Your task to perform on an android device: Add asus rog to the cart on amazon.com Image 0: 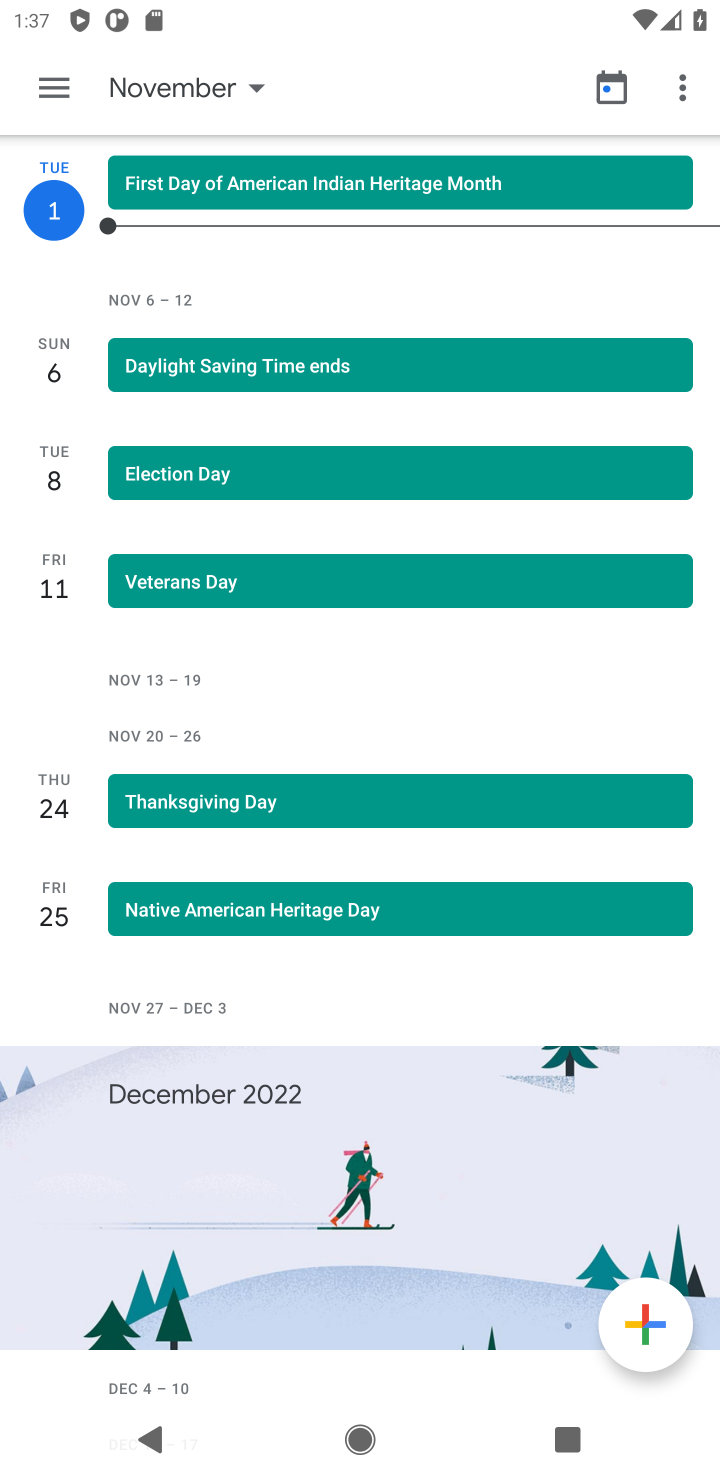
Step 0: press home button
Your task to perform on an android device: Add asus rog to the cart on amazon.com Image 1: 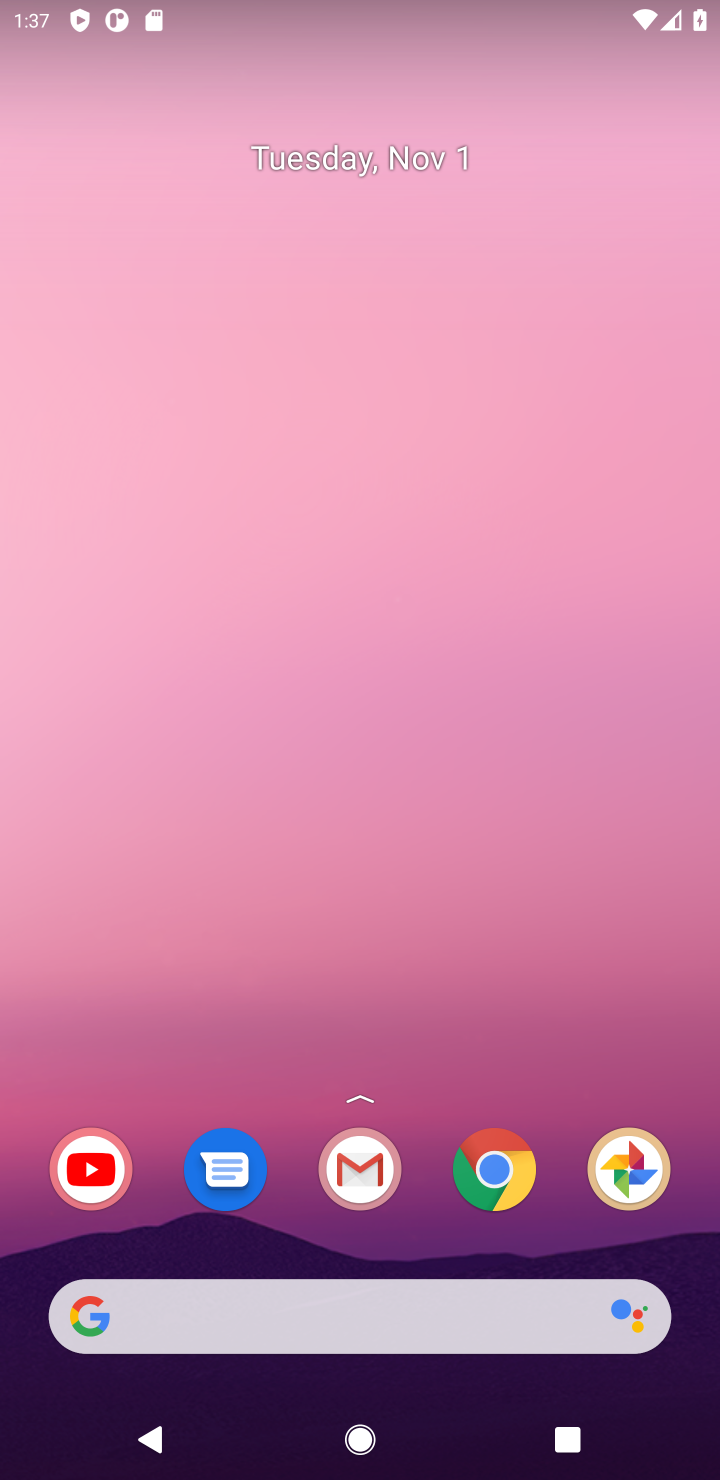
Step 1: click (484, 1177)
Your task to perform on an android device: Add asus rog to the cart on amazon.com Image 2: 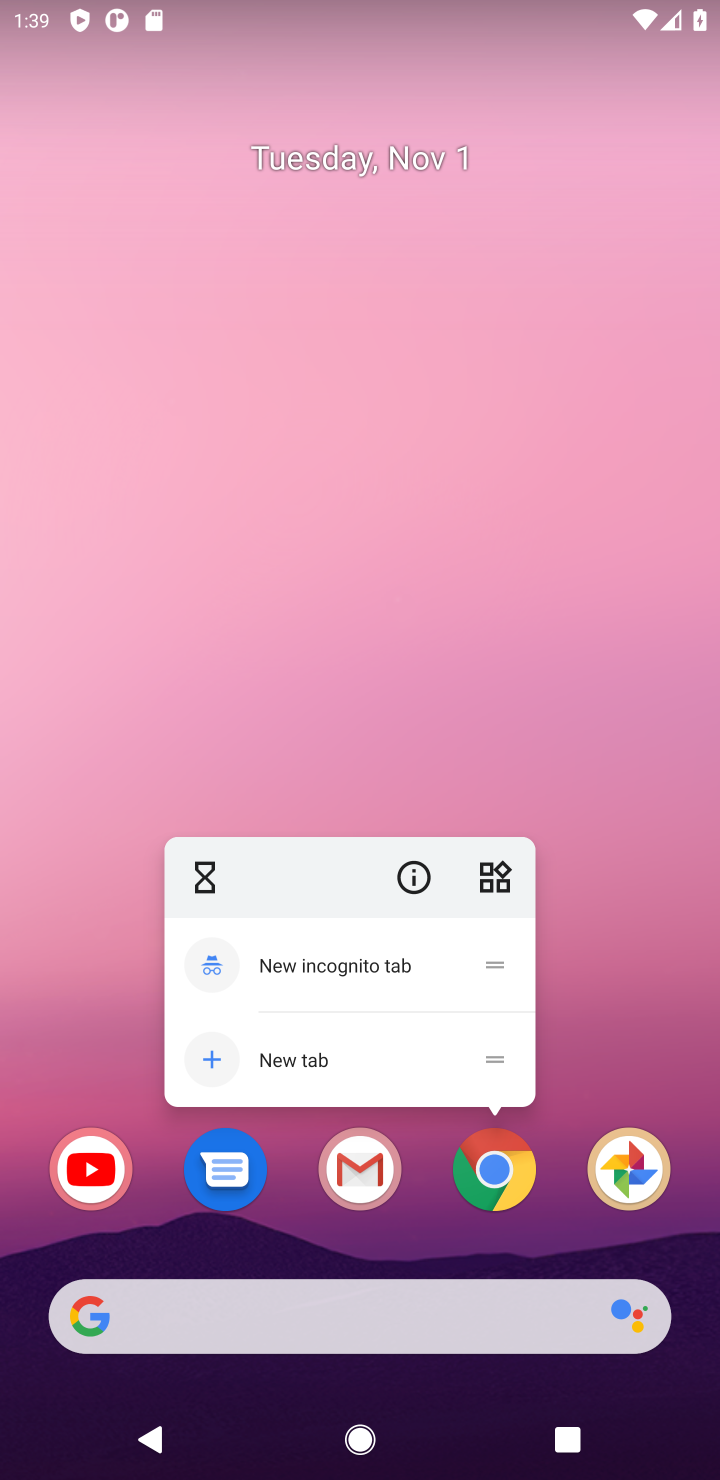
Step 2: click (507, 1166)
Your task to perform on an android device: Add asus rog to the cart on amazon.com Image 3: 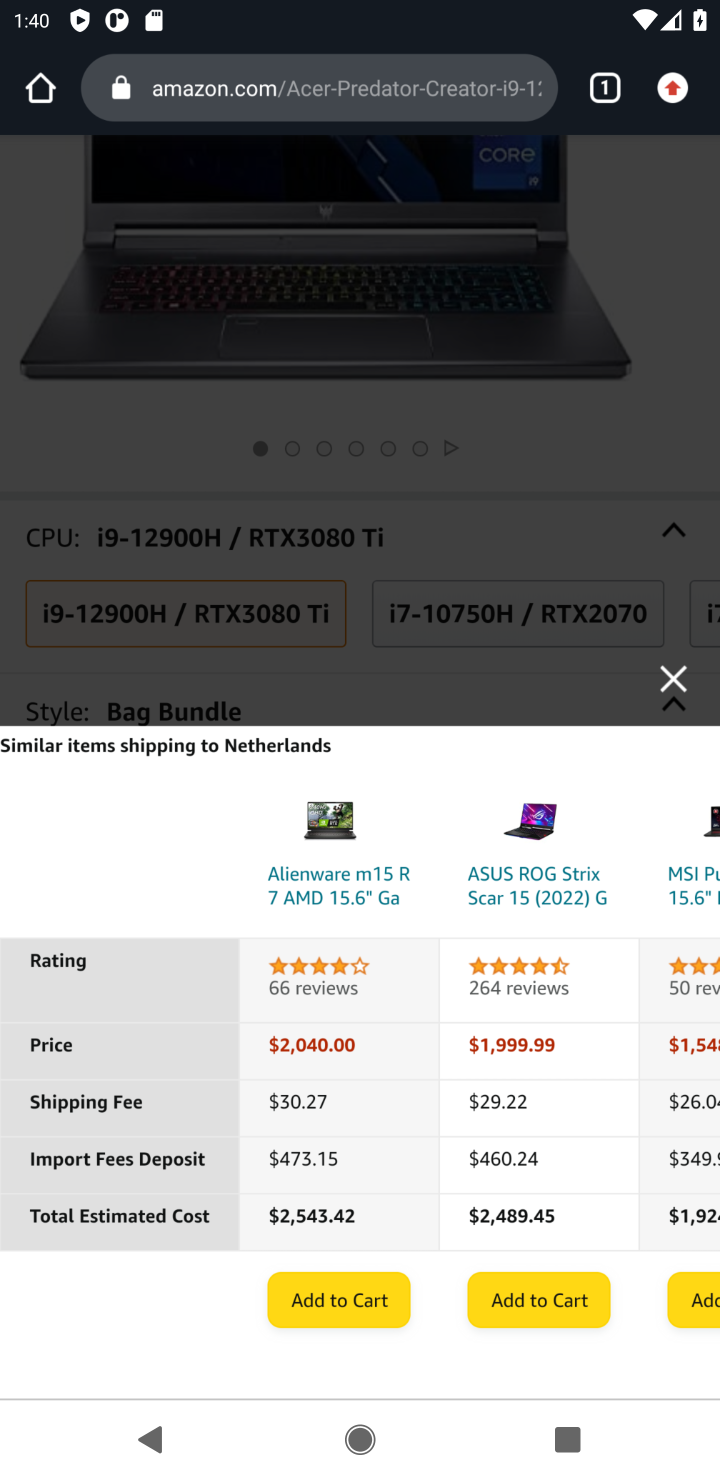
Step 3: click (491, 1168)
Your task to perform on an android device: Add asus rog to the cart on amazon.com Image 4: 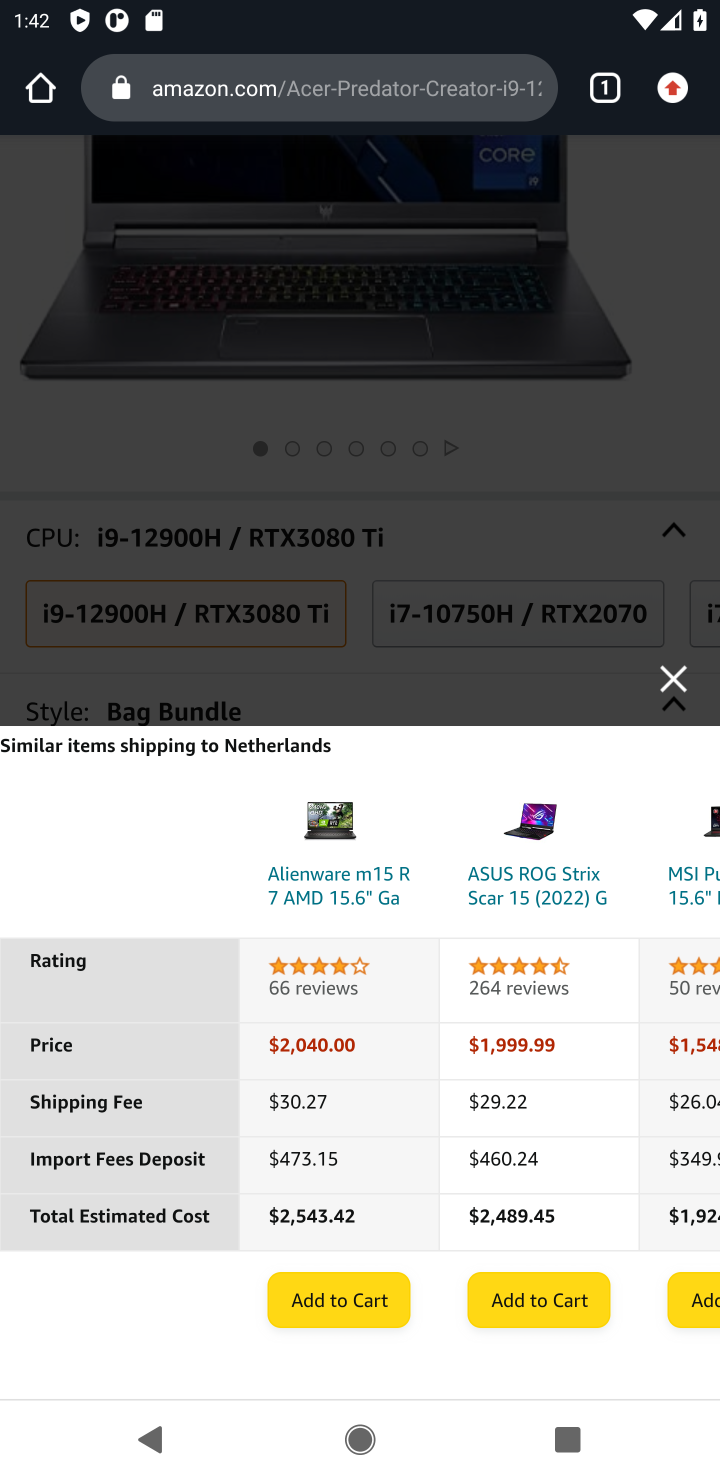
Step 4: press back button
Your task to perform on an android device: Add asus rog to the cart on amazon.com Image 5: 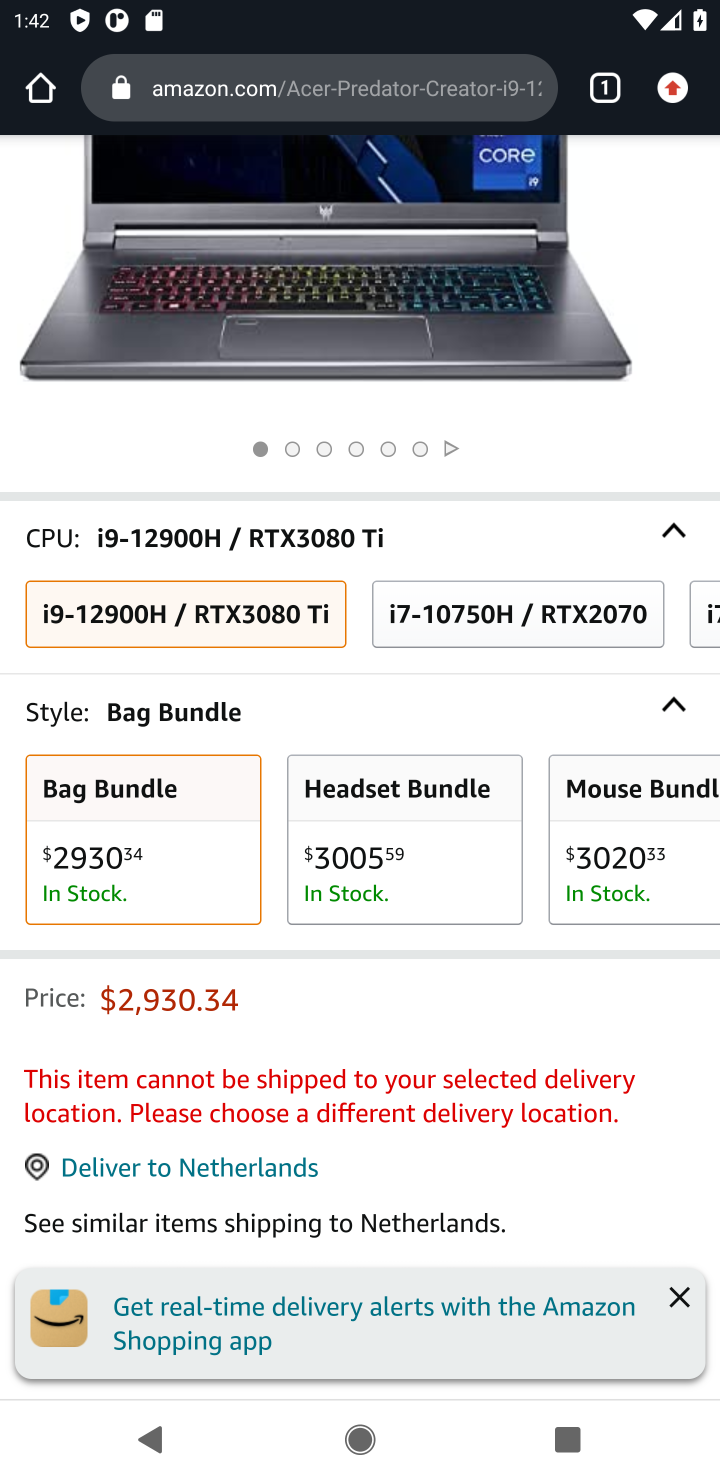
Step 5: click (415, 78)
Your task to perform on an android device: Add asus rog to the cart on amazon.com Image 6: 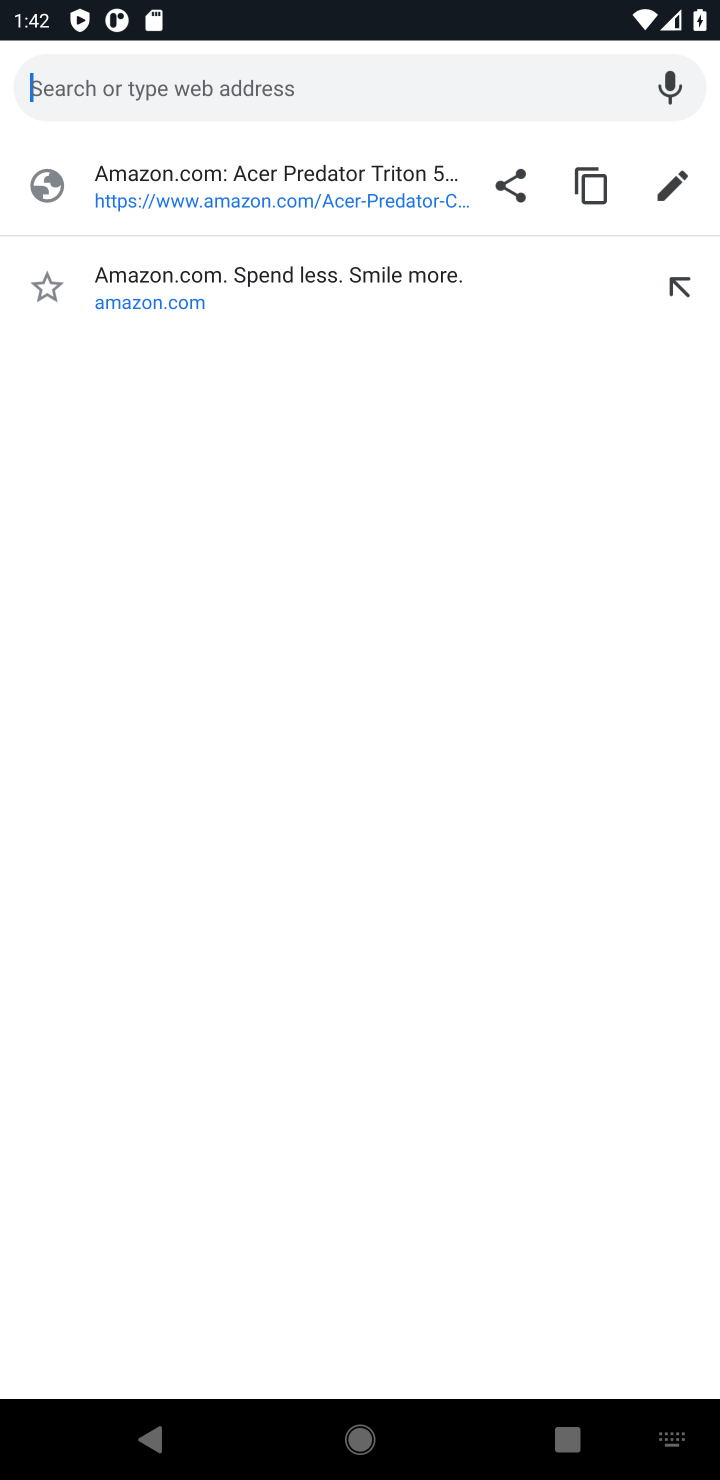
Step 6: press back button
Your task to perform on an android device: Add asus rog to the cart on amazon.com Image 7: 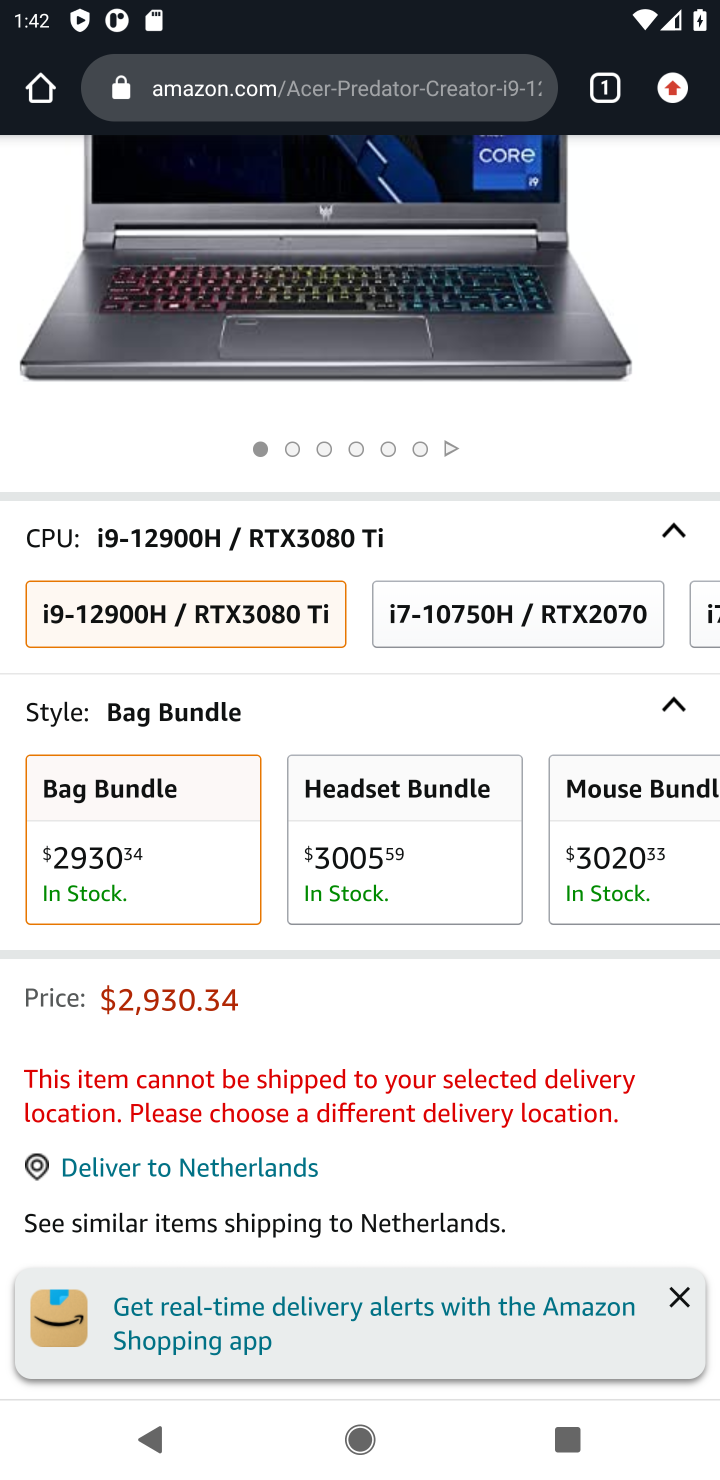
Step 7: drag from (397, 260) to (465, 1425)
Your task to perform on an android device: Add asus rog to the cart on amazon.com Image 8: 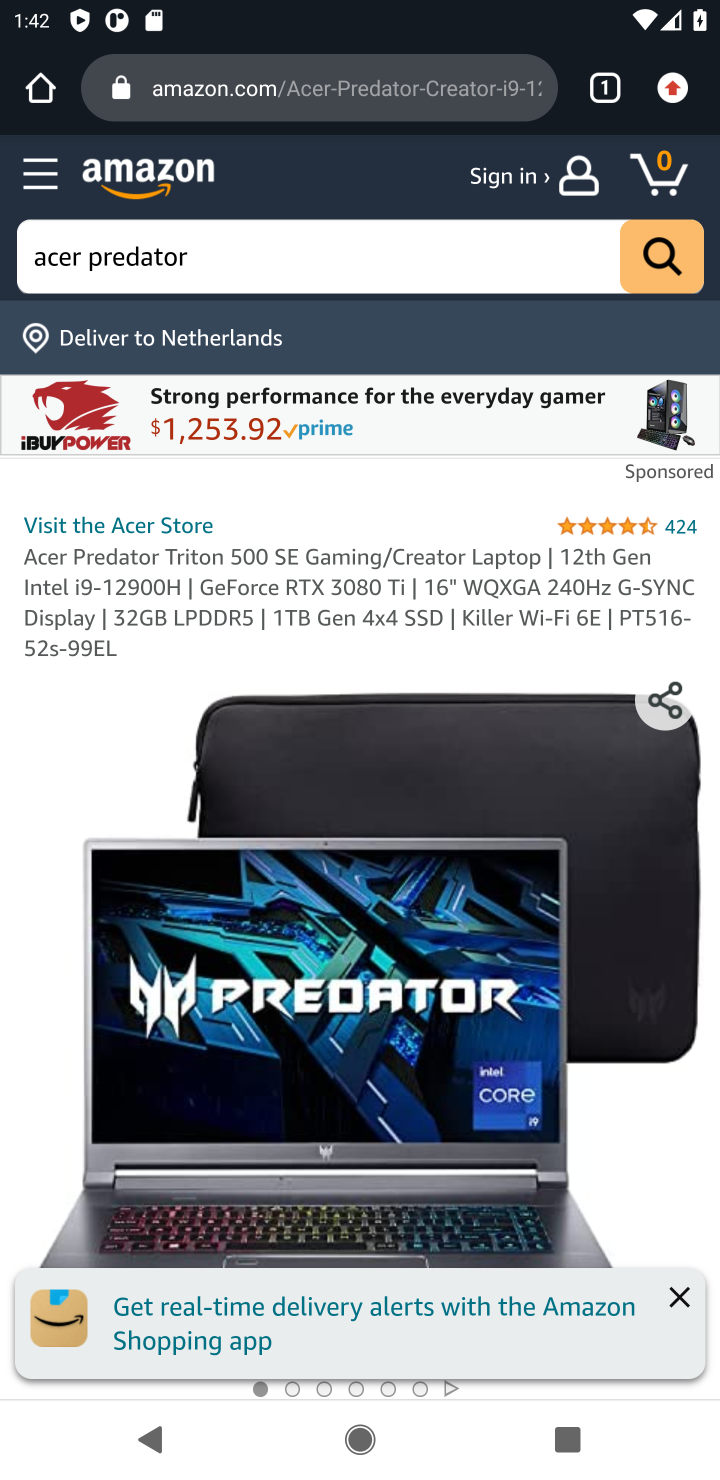
Step 8: click (420, 251)
Your task to perform on an android device: Add asus rog to the cart on amazon.com Image 9: 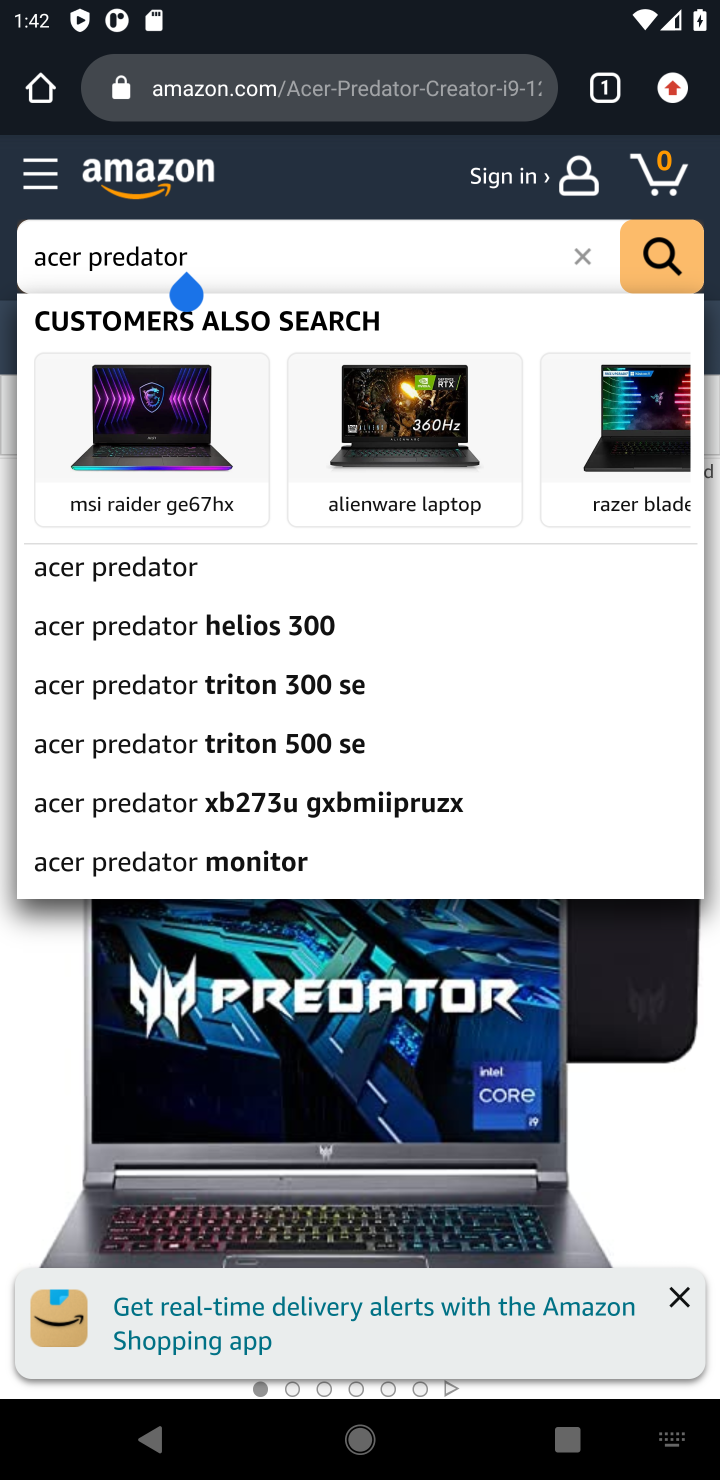
Step 9: click (420, 251)
Your task to perform on an android device: Add asus rog to the cart on amazon.com Image 10: 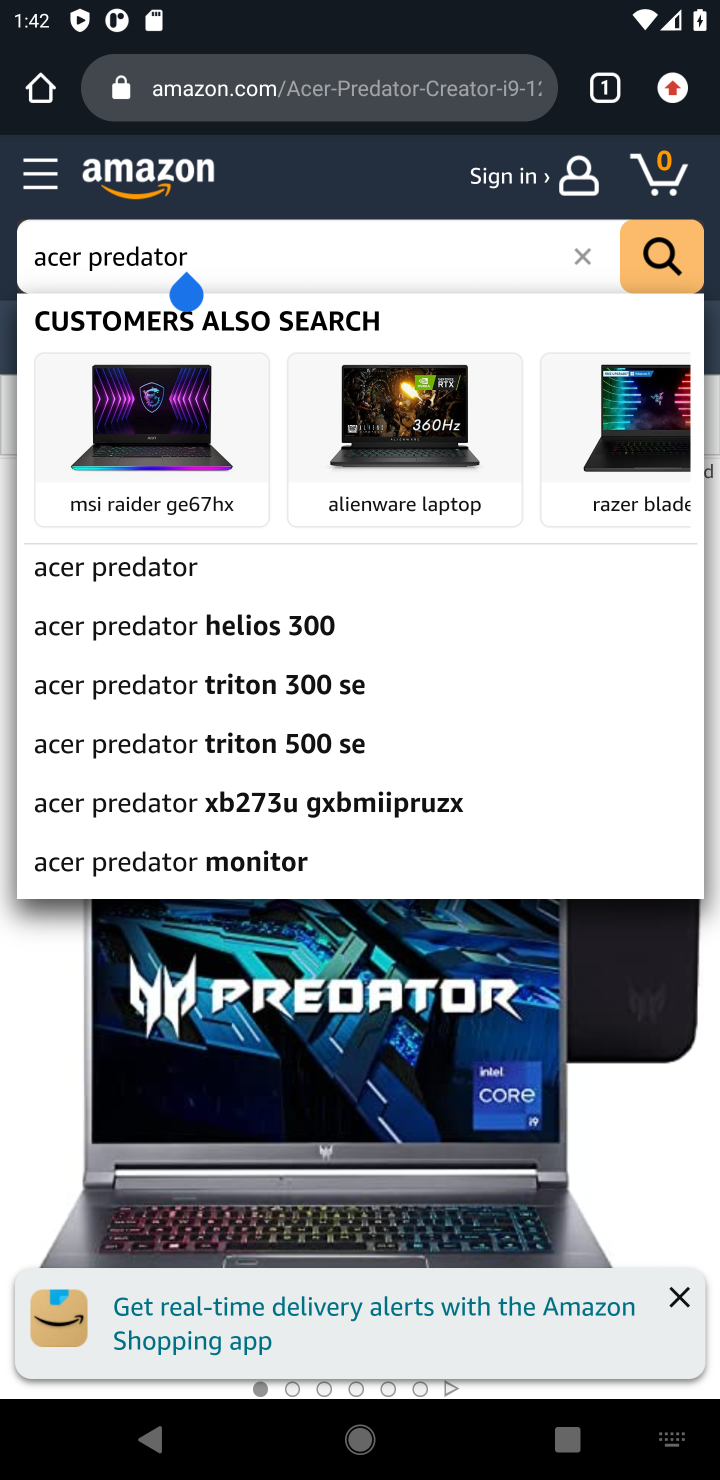
Step 10: click (578, 253)
Your task to perform on an android device: Add asus rog to the cart on amazon.com Image 11: 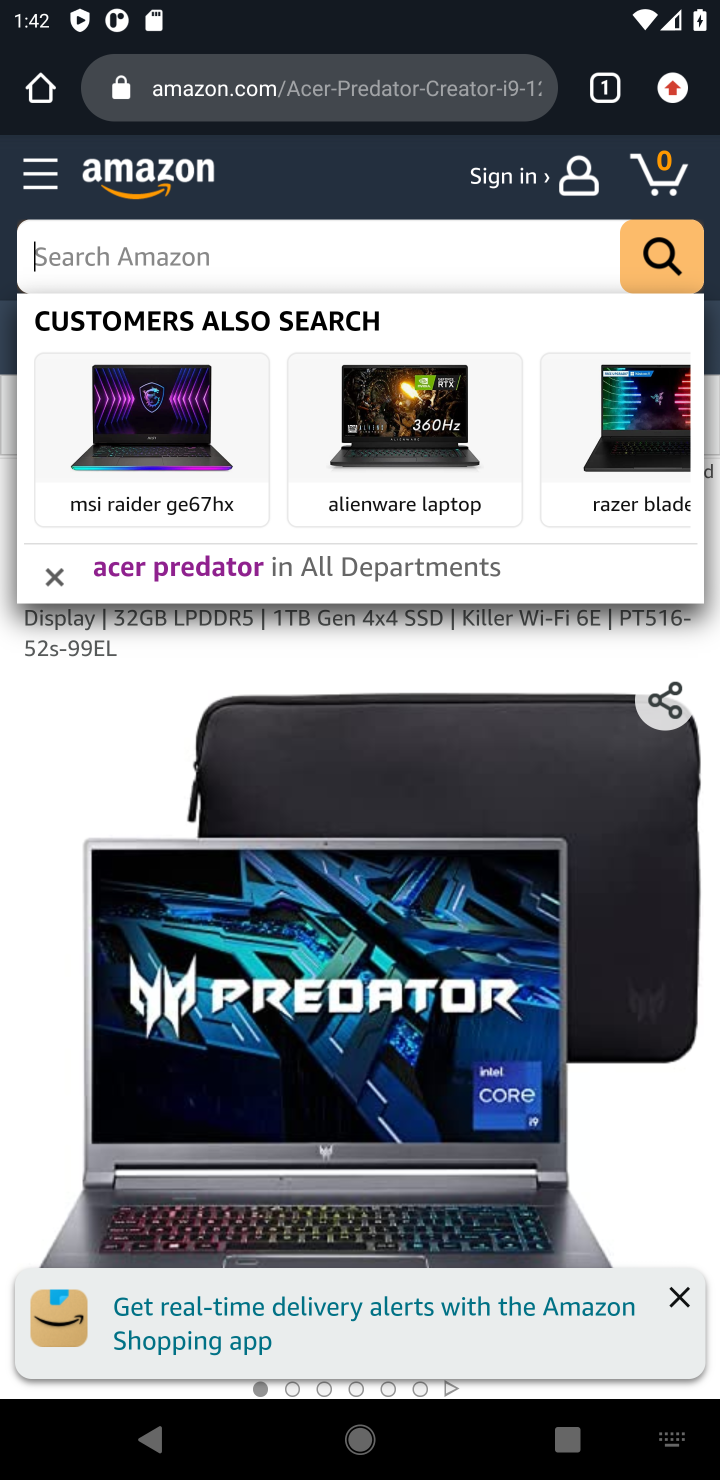
Step 11: type "asus rog"
Your task to perform on an android device: Add asus rog to the cart on amazon.com Image 12: 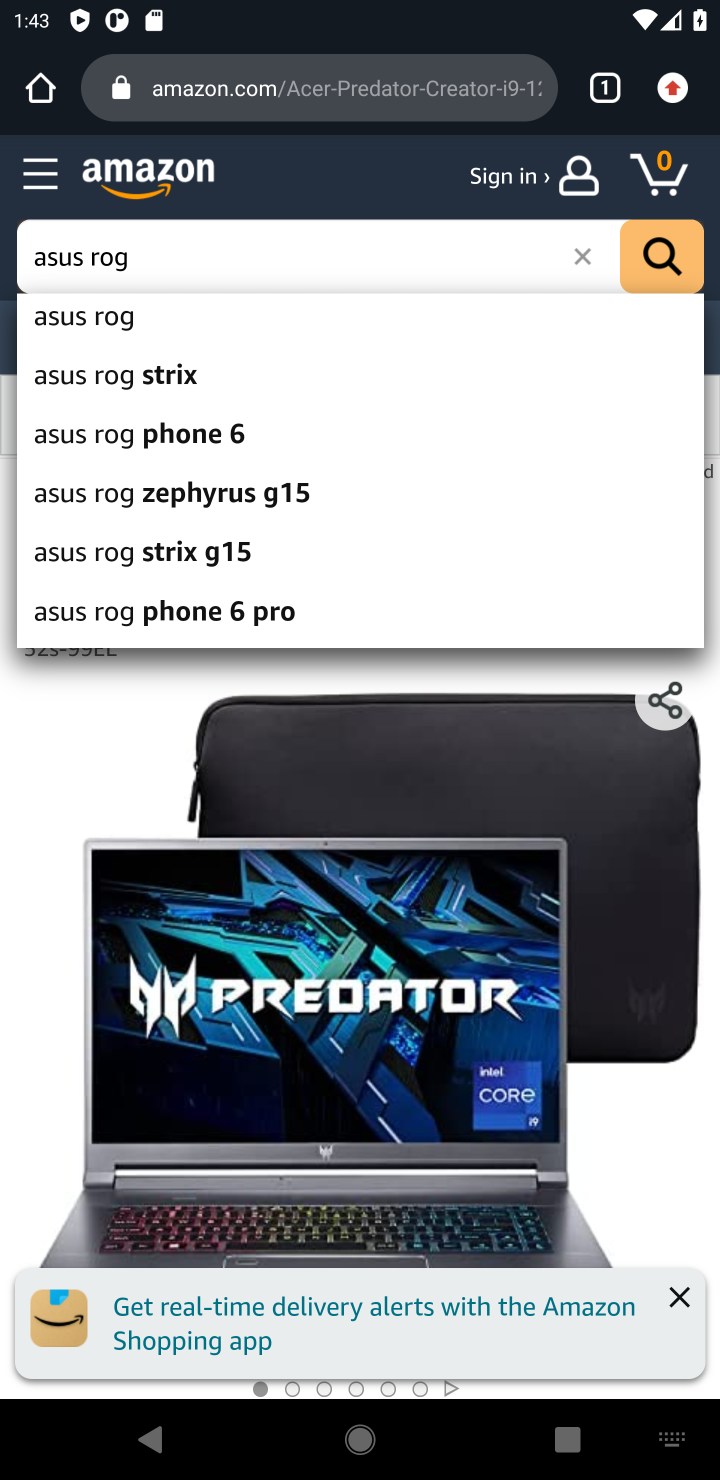
Step 12: click (45, 322)
Your task to perform on an android device: Add asus rog to the cart on amazon.com Image 13: 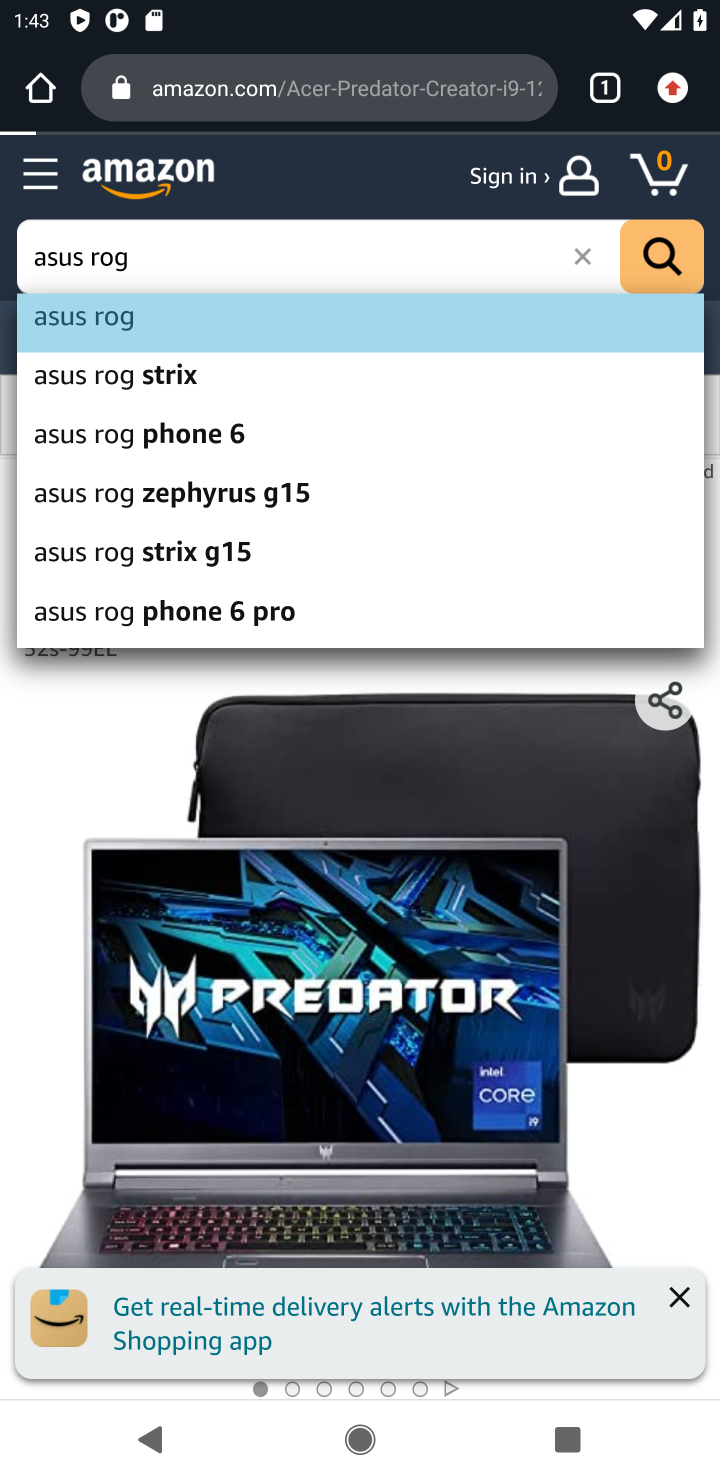
Step 13: click (112, 308)
Your task to perform on an android device: Add asus rog to the cart on amazon.com Image 14: 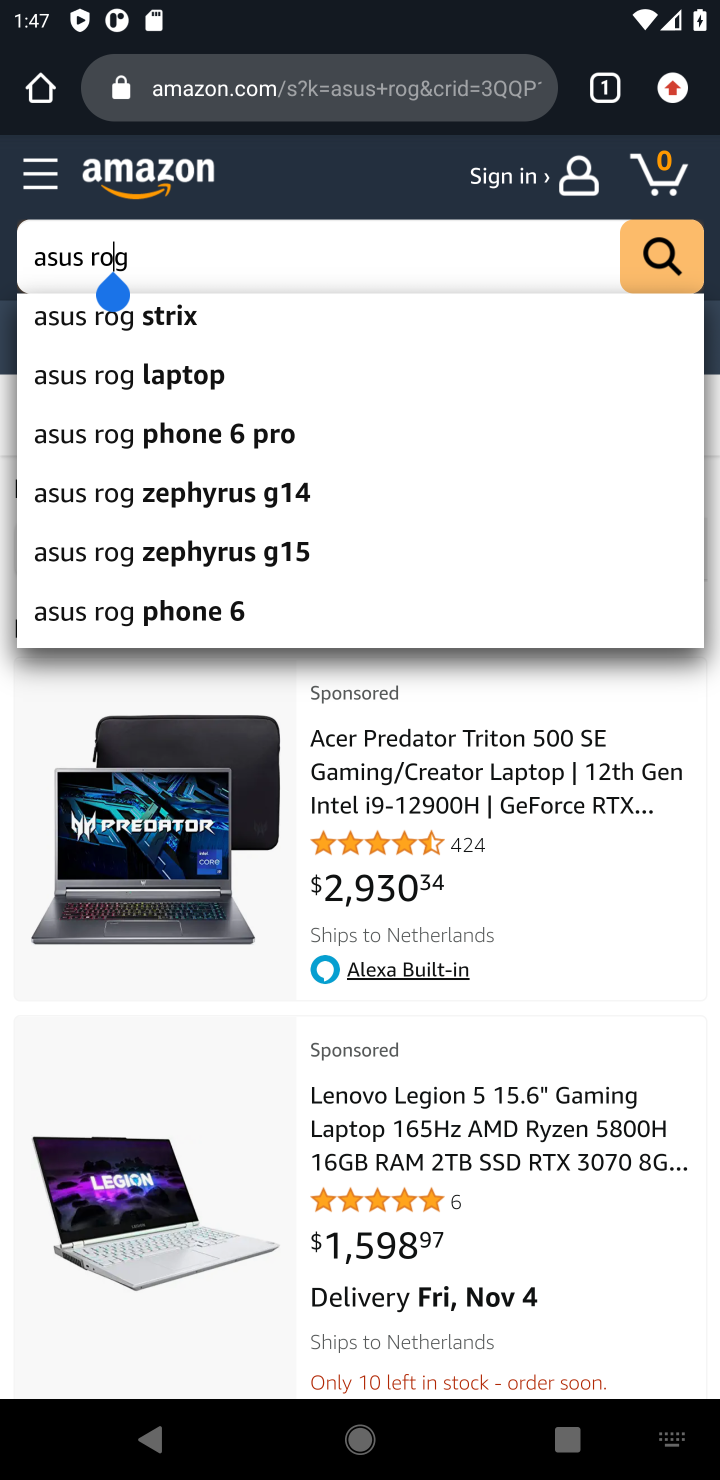
Step 14: click (686, 241)
Your task to perform on an android device: Add asus rog to the cart on amazon.com Image 15: 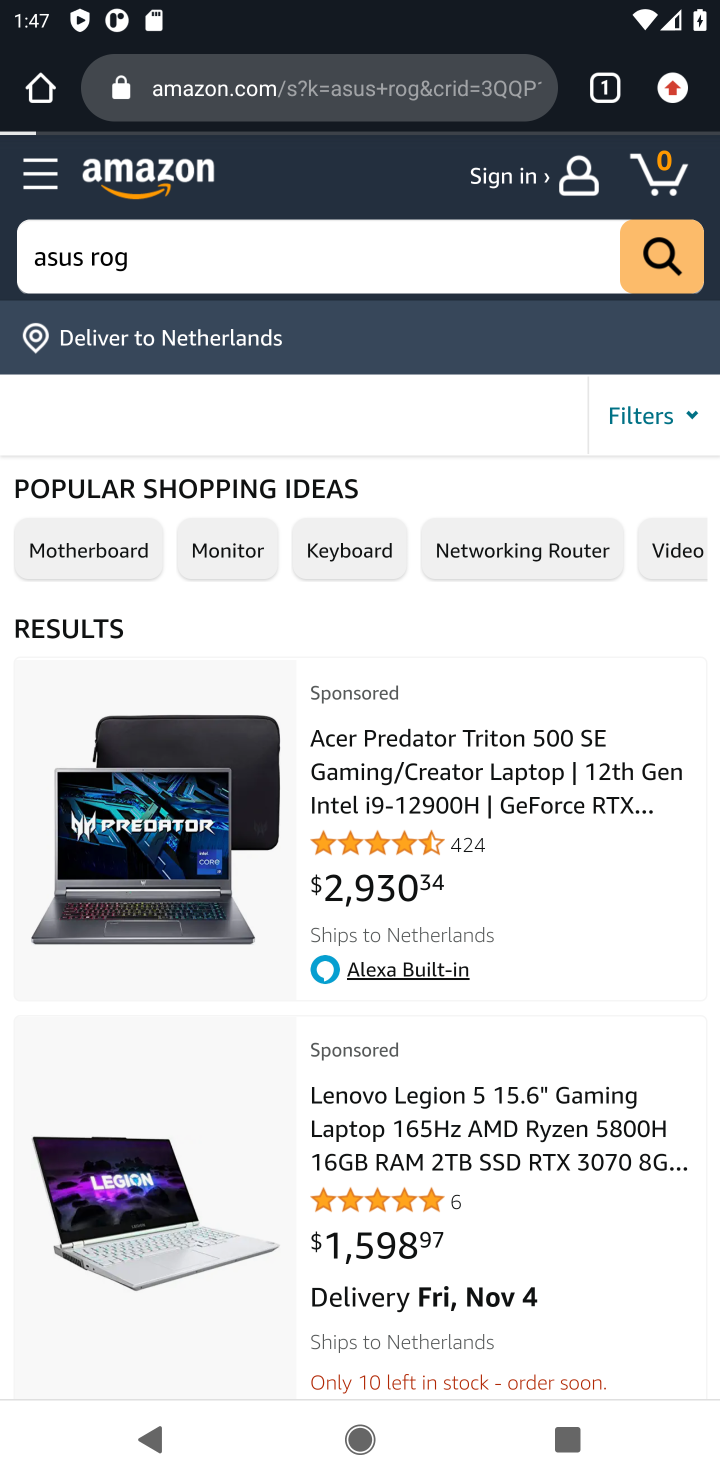
Step 15: click (664, 246)
Your task to perform on an android device: Add asus rog to the cart on amazon.com Image 16: 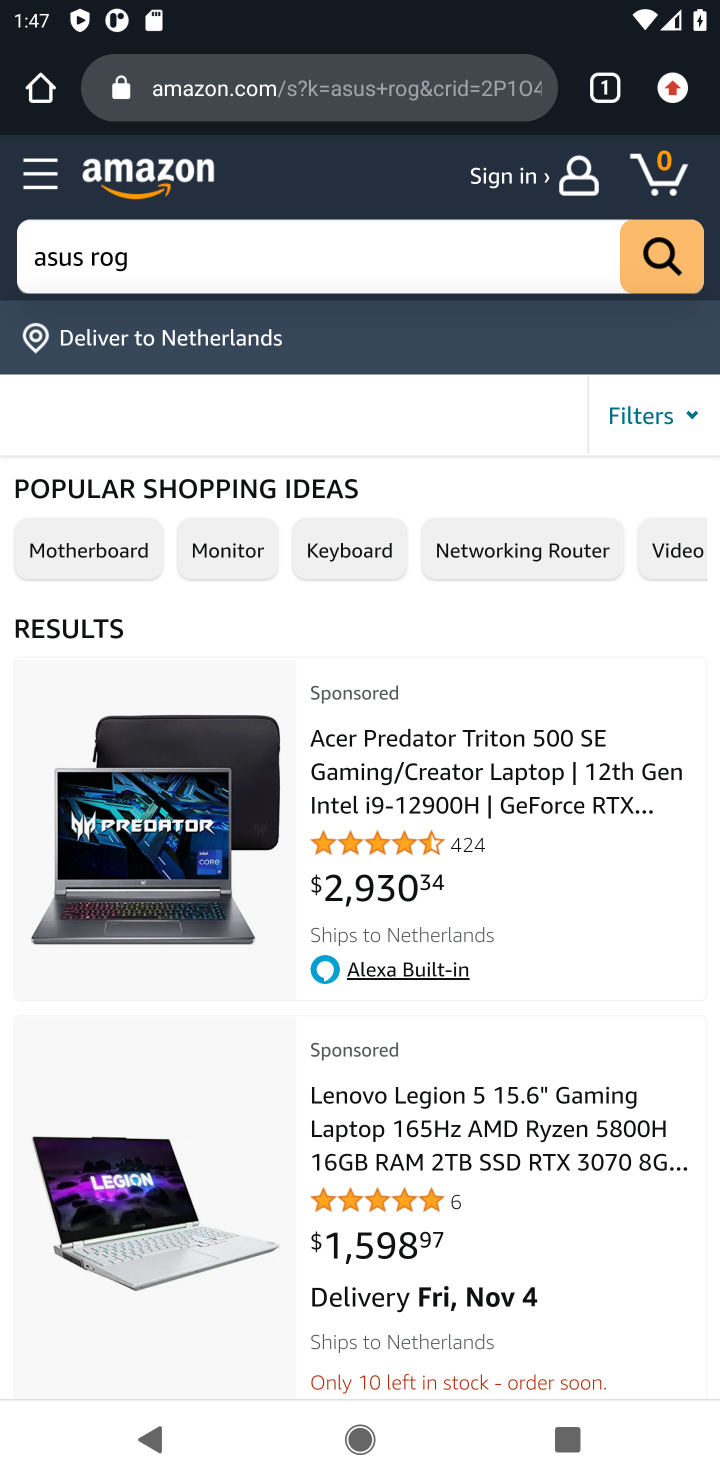
Step 16: drag from (467, 1258) to (493, 444)
Your task to perform on an android device: Add asus rog to the cart on amazon.com Image 17: 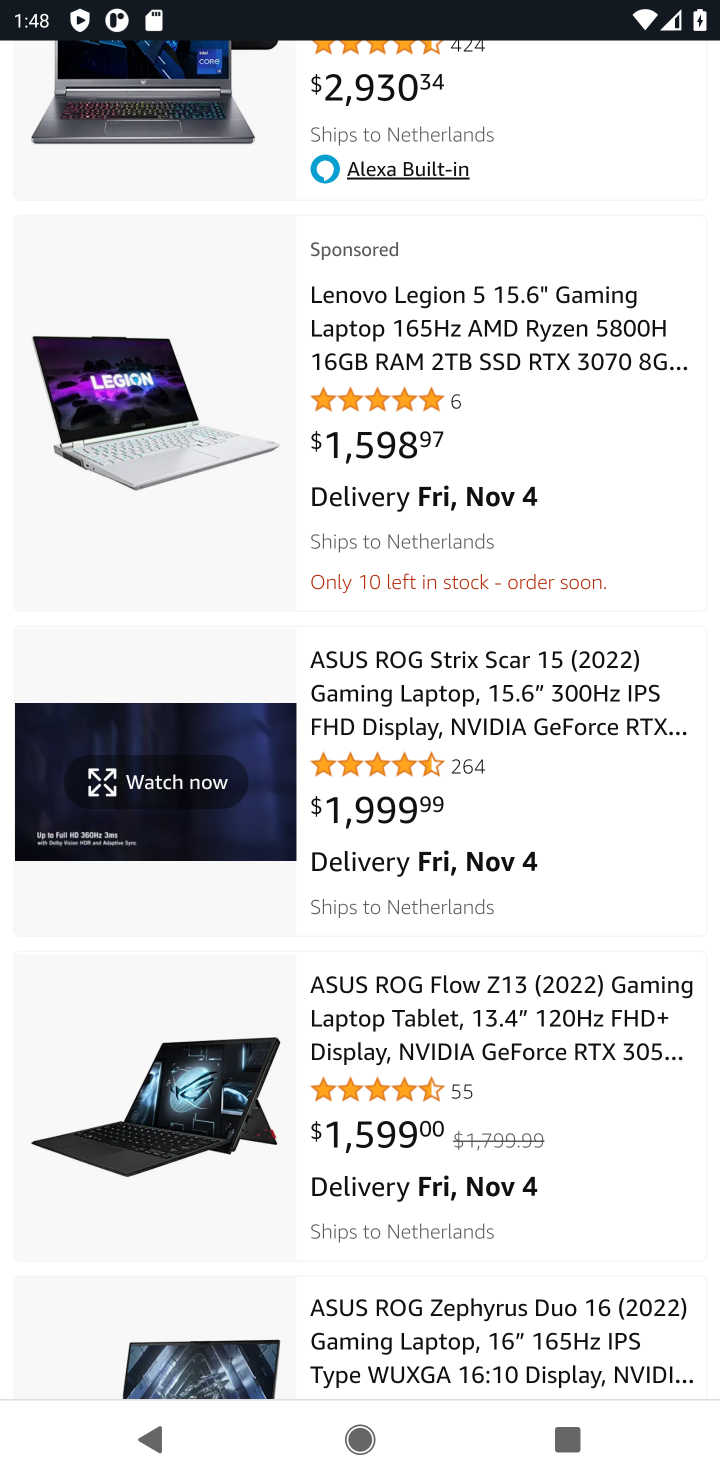
Step 17: click (472, 704)
Your task to perform on an android device: Add asus rog to the cart on amazon.com Image 18: 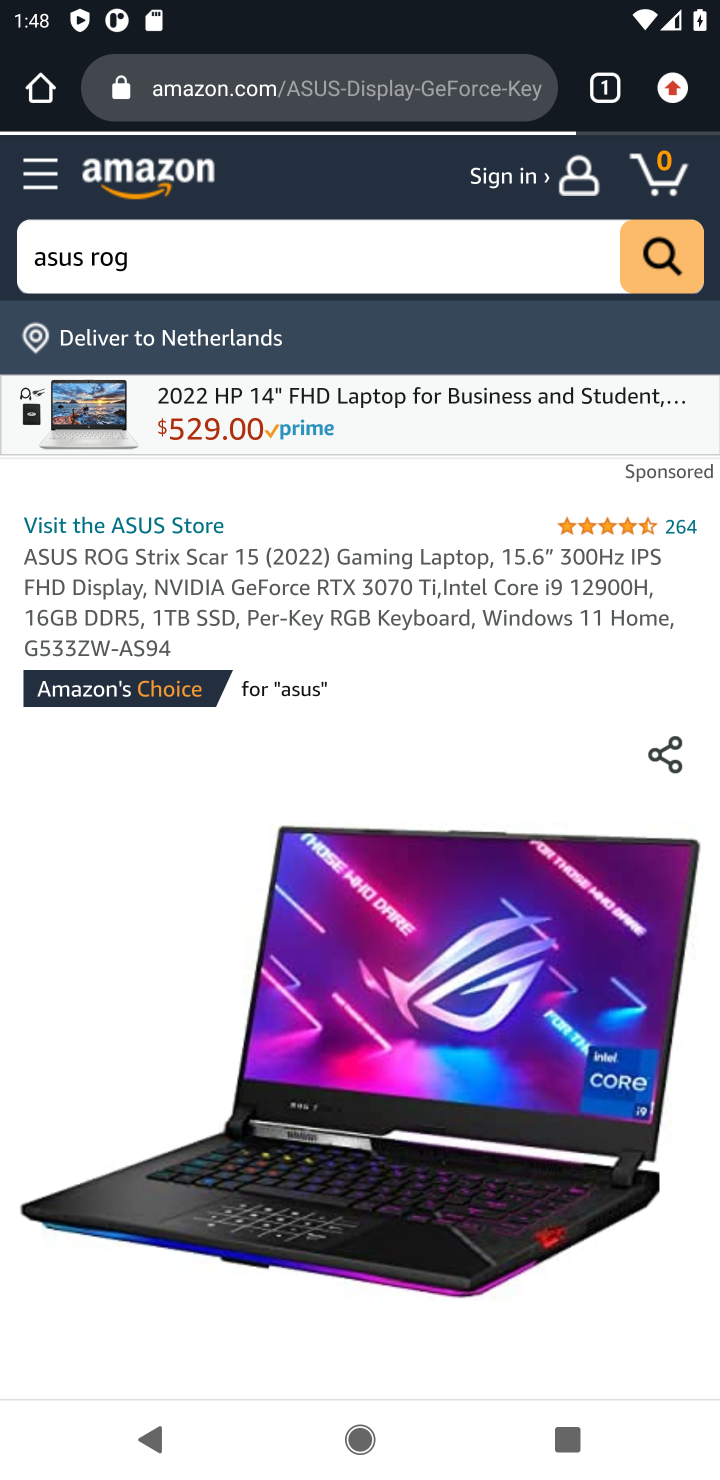
Step 18: drag from (306, 1252) to (386, 757)
Your task to perform on an android device: Add asus rog to the cart on amazon.com Image 19: 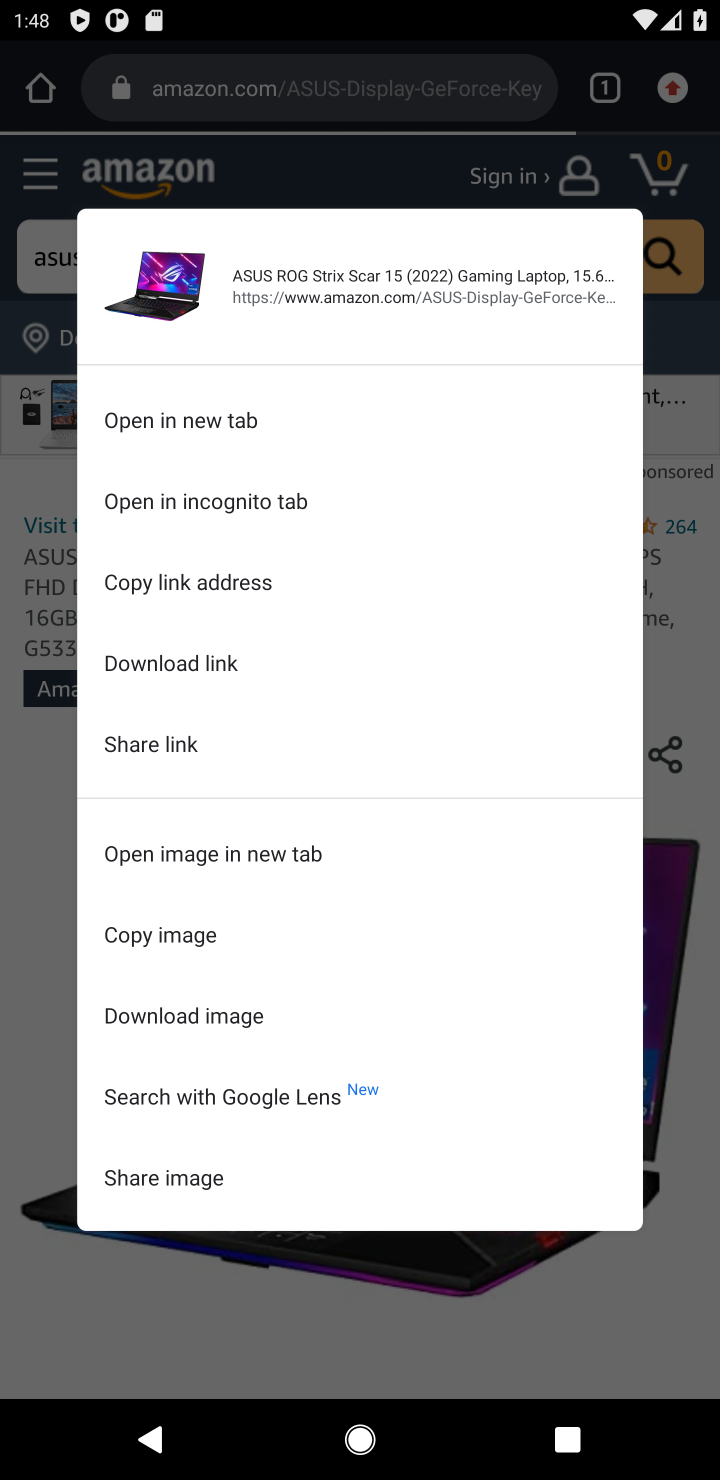
Step 19: click (164, 1336)
Your task to perform on an android device: Add asus rog to the cart on amazon.com Image 20: 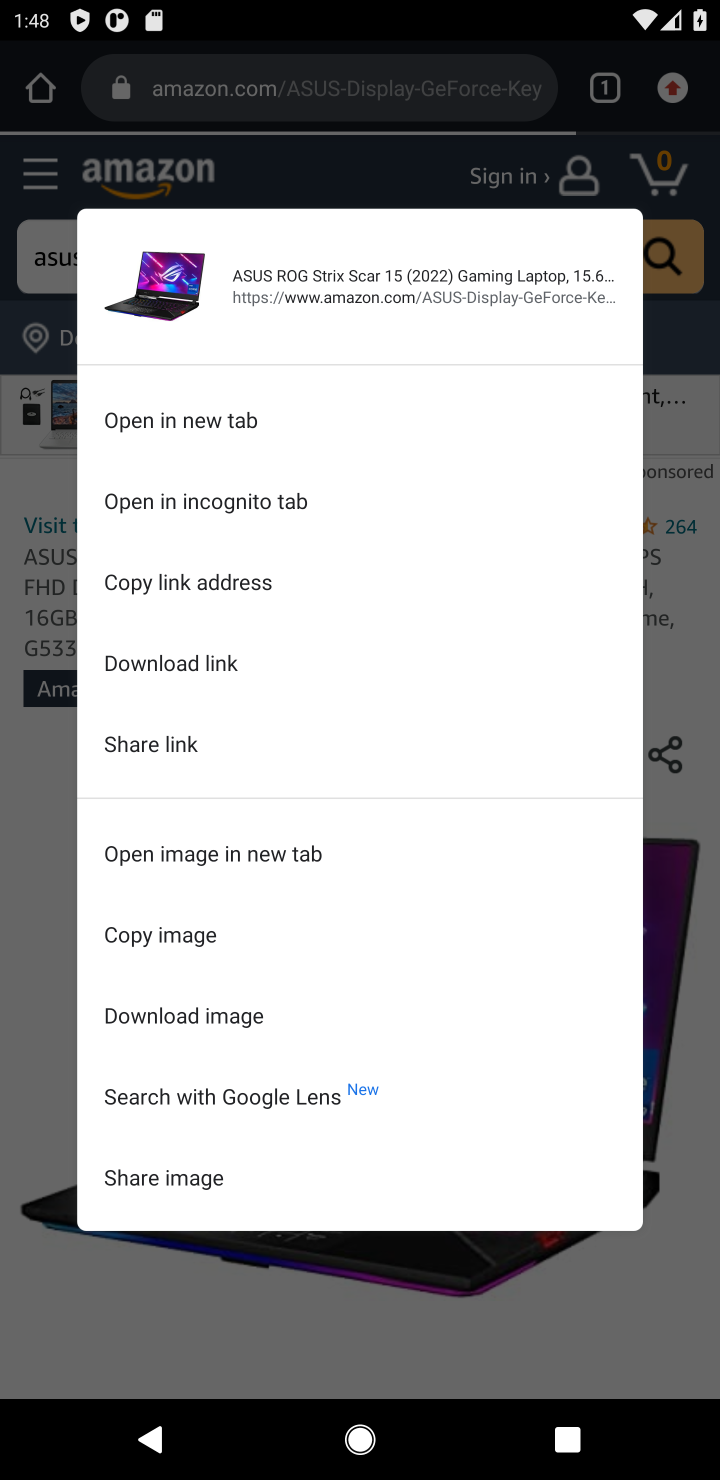
Step 20: drag from (165, 1314) to (169, 301)
Your task to perform on an android device: Add asus rog to the cart on amazon.com Image 21: 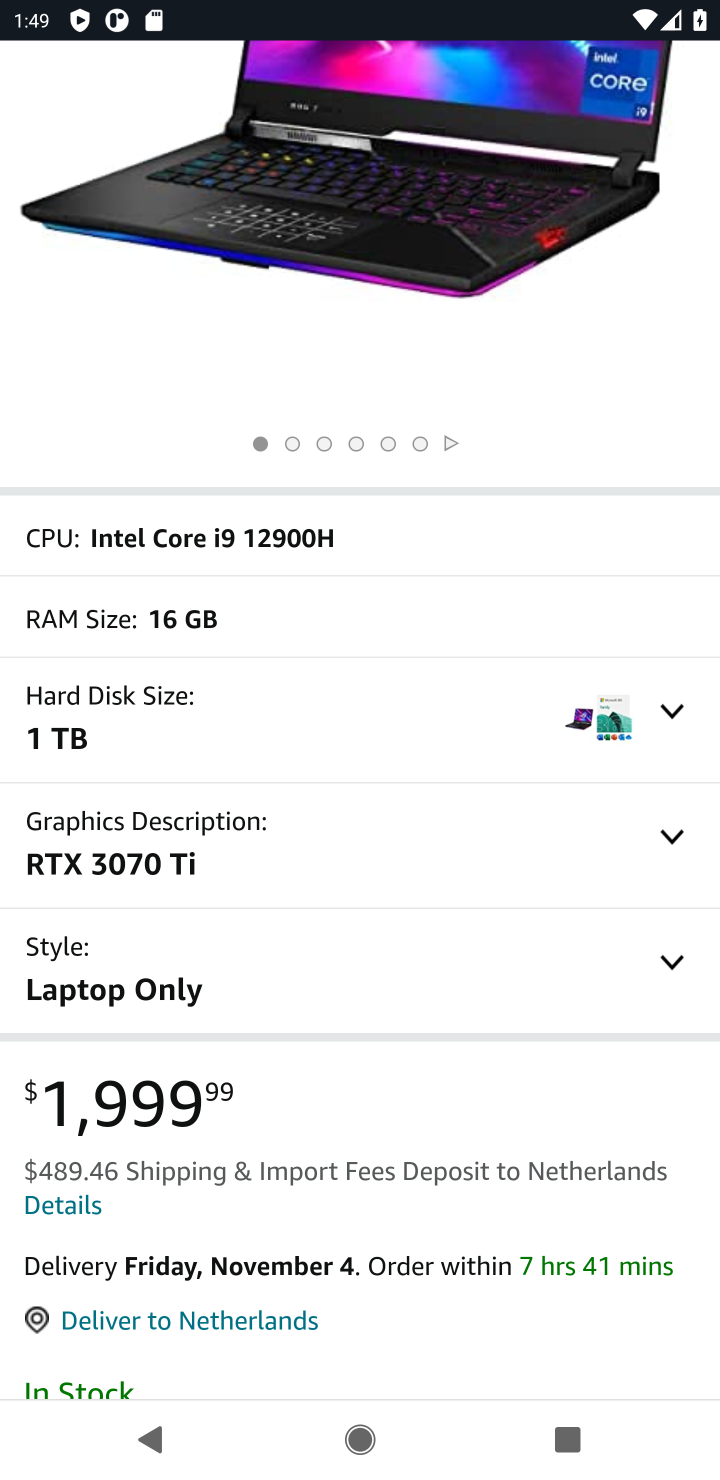
Step 21: drag from (447, 456) to (500, 92)
Your task to perform on an android device: Add asus rog to the cart on amazon.com Image 22: 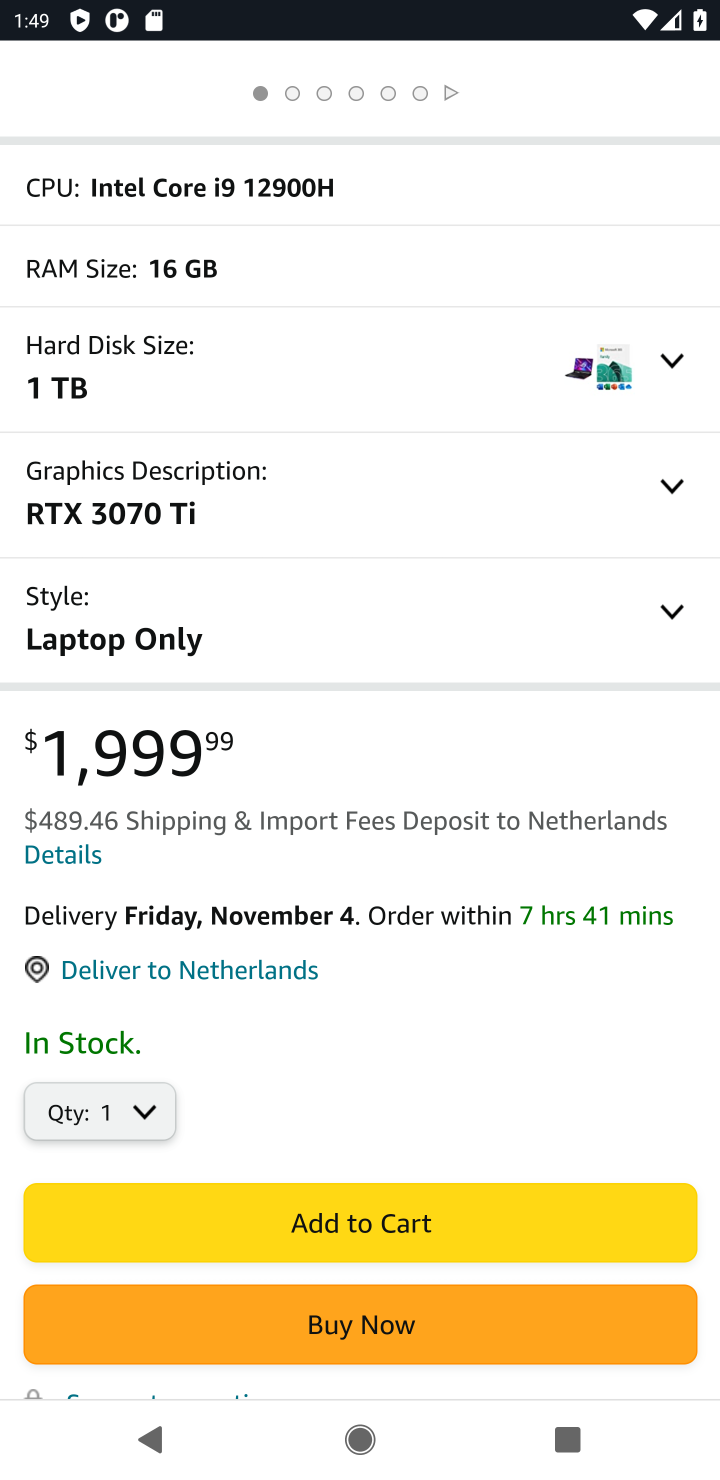
Step 22: drag from (433, 1202) to (481, 794)
Your task to perform on an android device: Add asus rog to the cart on amazon.com Image 23: 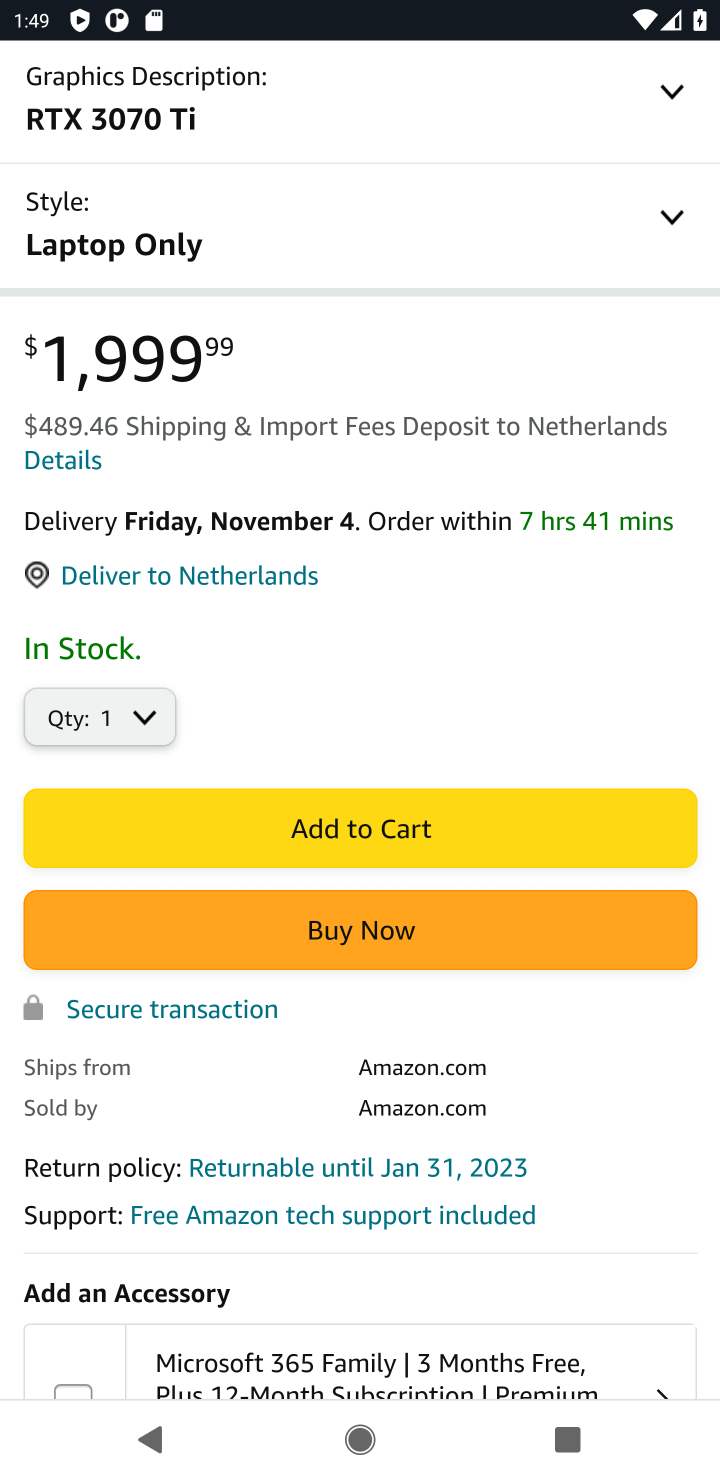
Step 23: click (305, 836)
Your task to perform on an android device: Add asus rog to the cart on amazon.com Image 24: 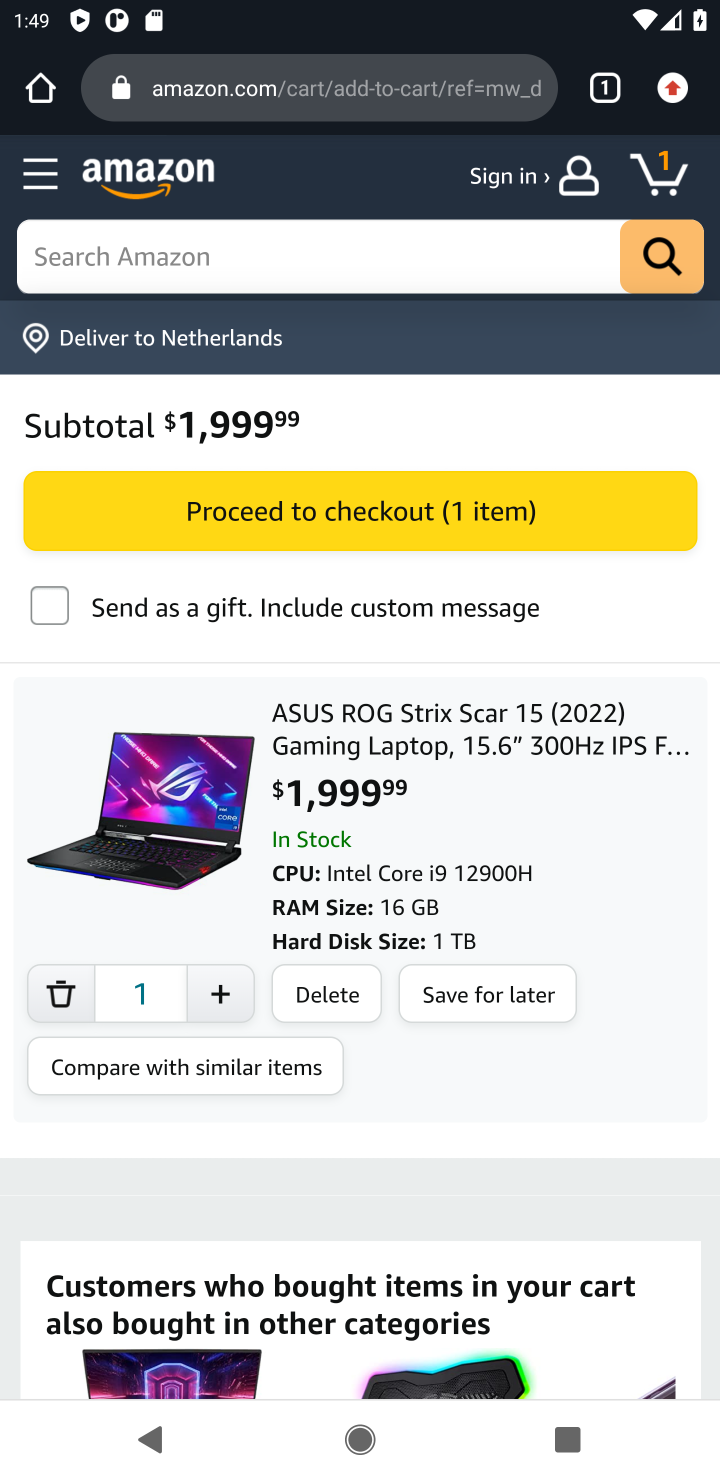
Step 24: task complete